Your task to perform on an android device: uninstall "Contacts" Image 0: 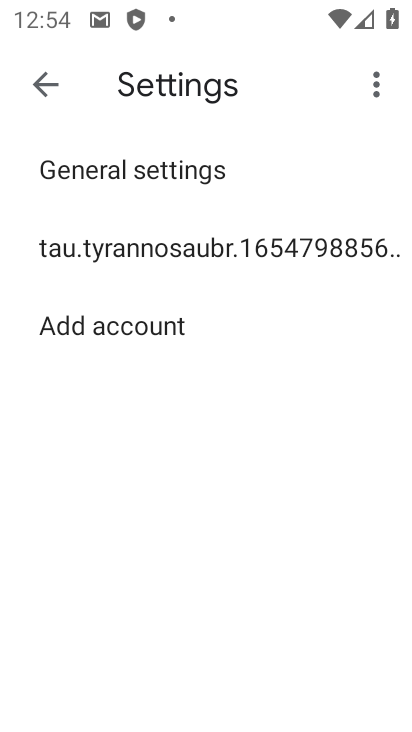
Step 0: press back button
Your task to perform on an android device: uninstall "Contacts" Image 1: 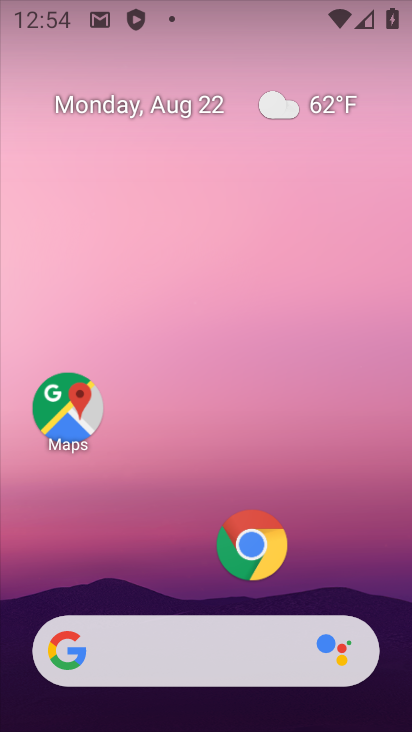
Step 1: drag from (171, 545) to (292, 20)
Your task to perform on an android device: uninstall "Contacts" Image 2: 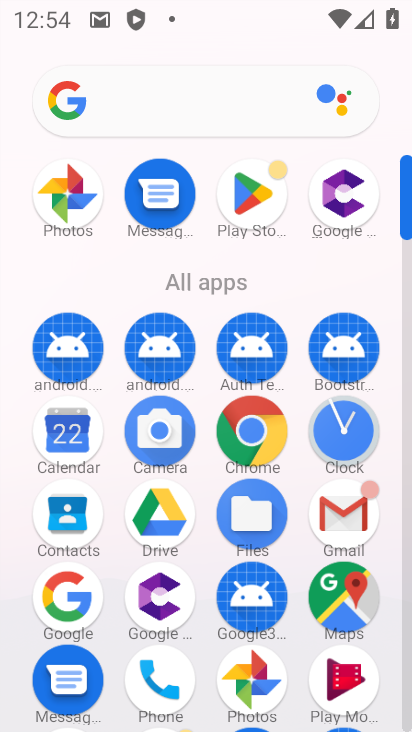
Step 2: click (270, 193)
Your task to perform on an android device: uninstall "Contacts" Image 3: 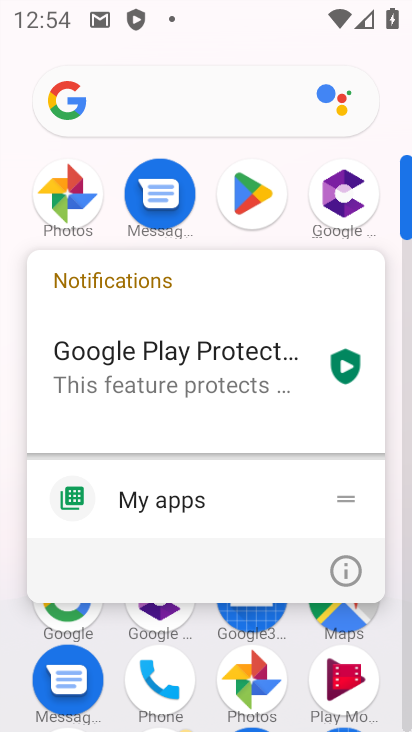
Step 3: click (278, 178)
Your task to perform on an android device: uninstall "Contacts" Image 4: 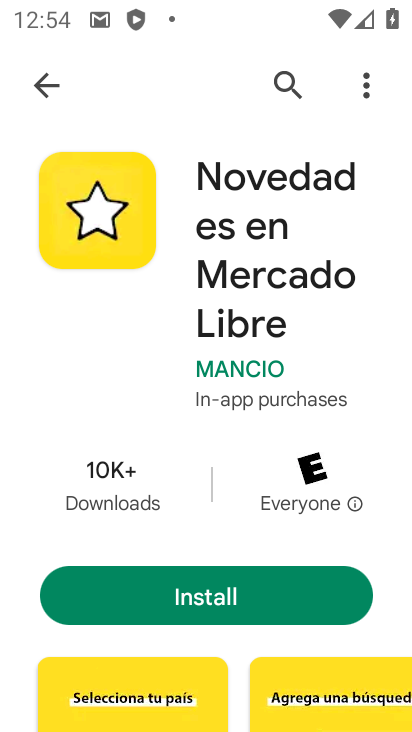
Step 4: click (291, 57)
Your task to perform on an android device: uninstall "Contacts" Image 5: 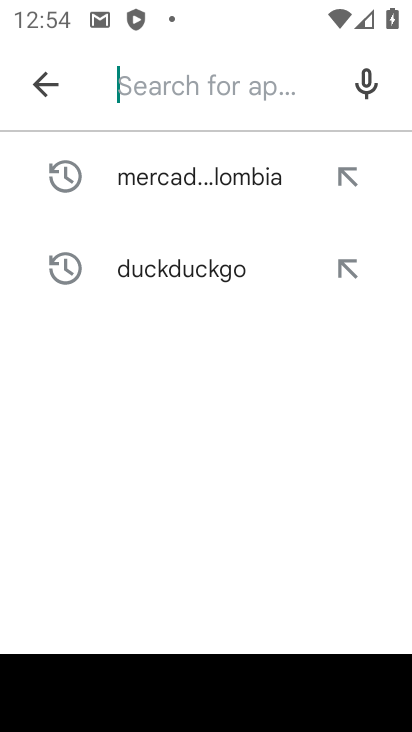
Step 5: click (233, 88)
Your task to perform on an android device: uninstall "Contacts" Image 6: 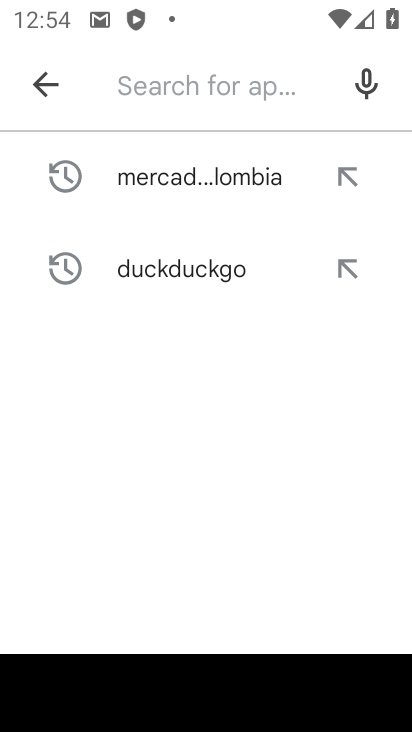
Step 6: type "contacts"
Your task to perform on an android device: uninstall "Contacts" Image 7: 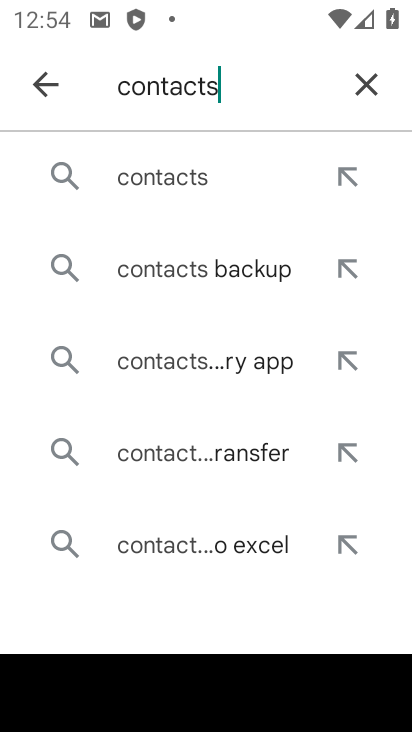
Step 7: click (165, 186)
Your task to perform on an android device: uninstall "Contacts" Image 8: 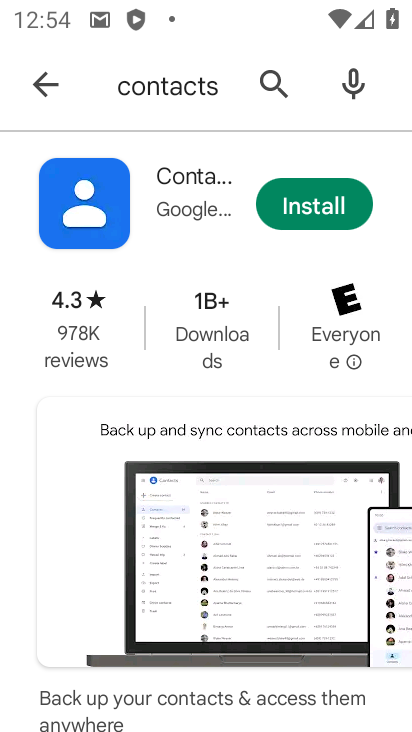
Step 8: click (177, 194)
Your task to perform on an android device: uninstall "Contacts" Image 9: 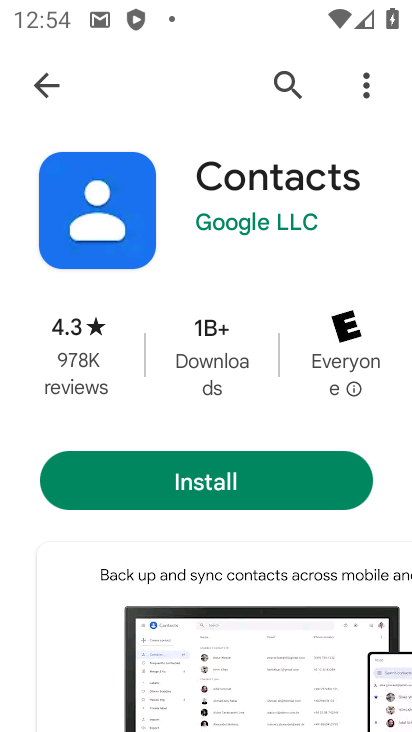
Step 9: task complete